Your task to perform on an android device: change timer sound Image 0: 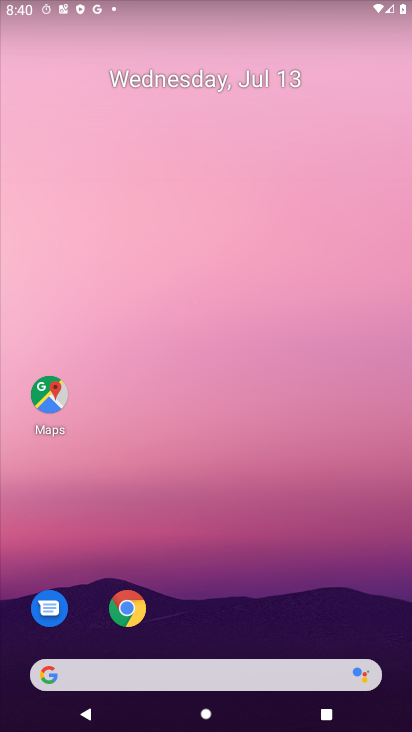
Step 0: drag from (326, 677) to (183, 148)
Your task to perform on an android device: change timer sound Image 1: 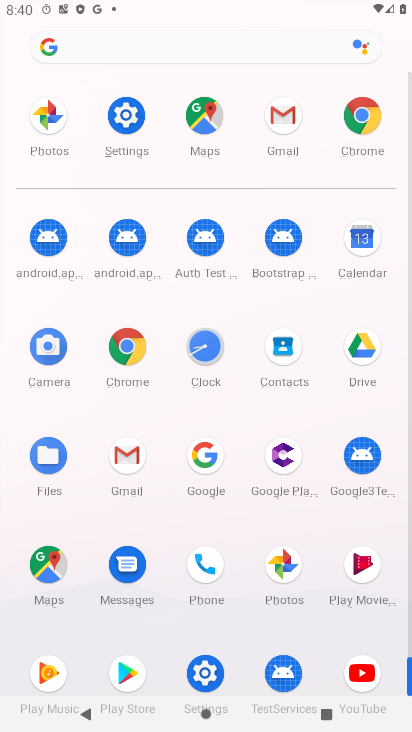
Step 1: click (204, 348)
Your task to perform on an android device: change timer sound Image 2: 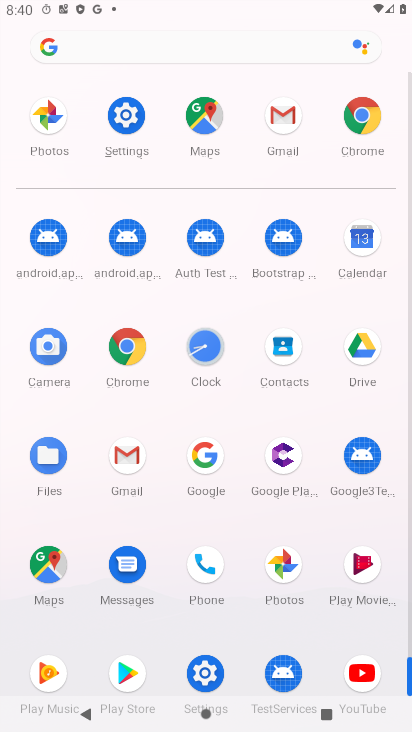
Step 2: click (205, 348)
Your task to perform on an android device: change timer sound Image 3: 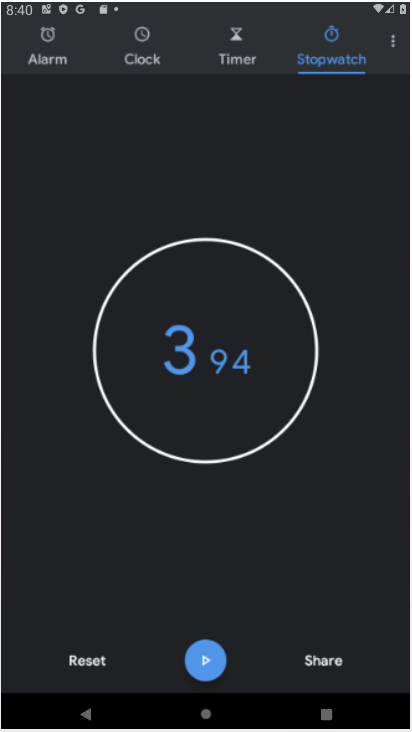
Step 3: click (209, 351)
Your task to perform on an android device: change timer sound Image 4: 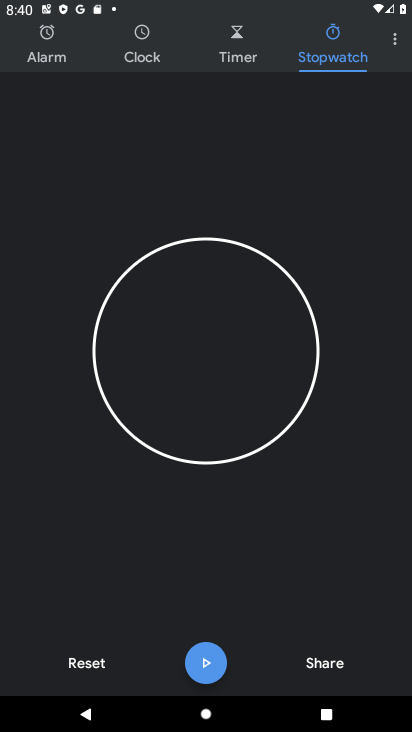
Step 4: click (210, 353)
Your task to perform on an android device: change timer sound Image 5: 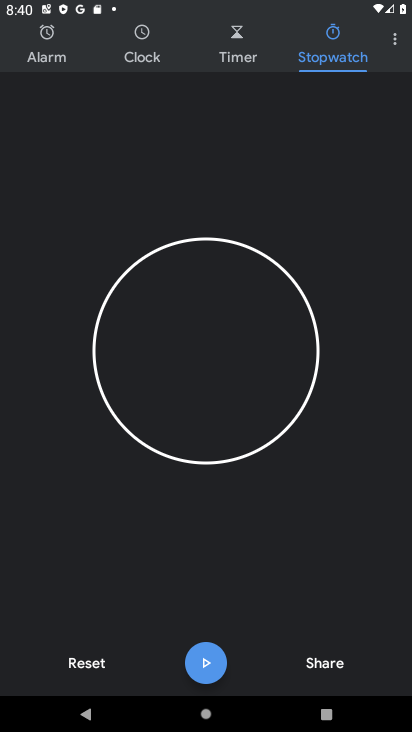
Step 5: click (238, 61)
Your task to perform on an android device: change timer sound Image 6: 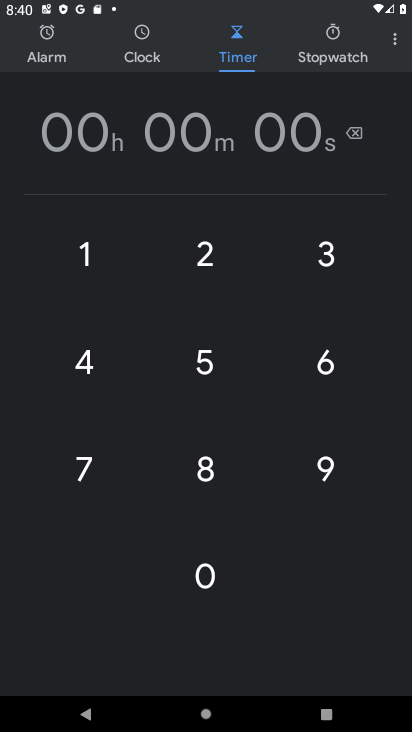
Step 6: click (200, 366)
Your task to perform on an android device: change timer sound Image 7: 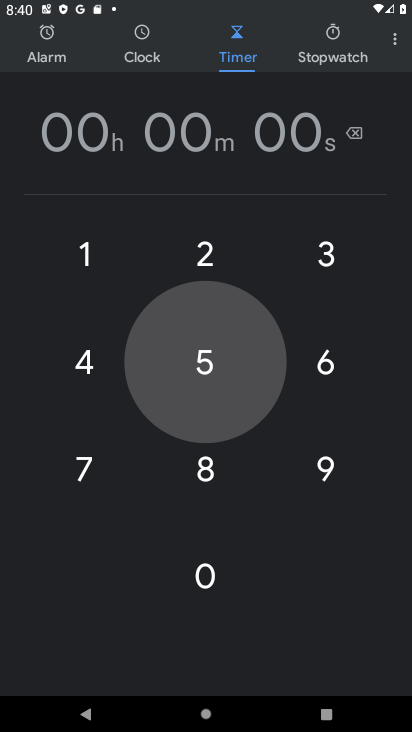
Step 7: click (200, 366)
Your task to perform on an android device: change timer sound Image 8: 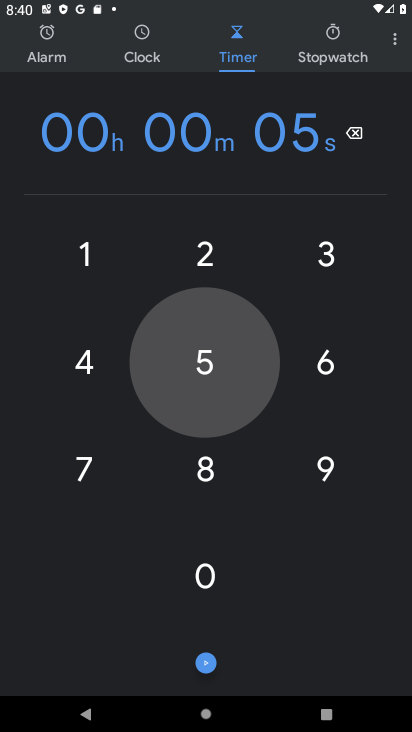
Step 8: click (200, 366)
Your task to perform on an android device: change timer sound Image 9: 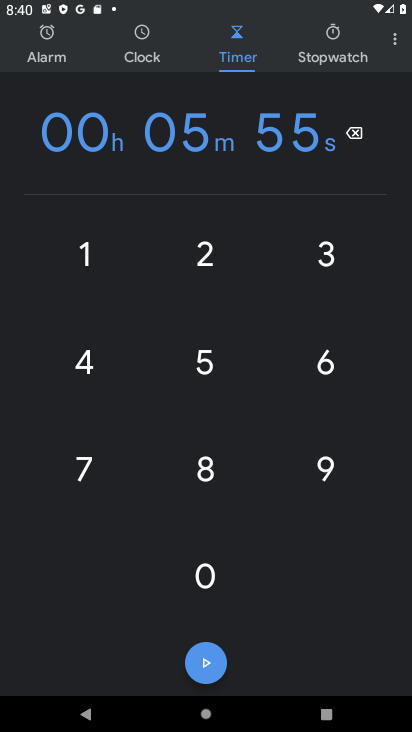
Step 9: click (393, 42)
Your task to perform on an android device: change timer sound Image 10: 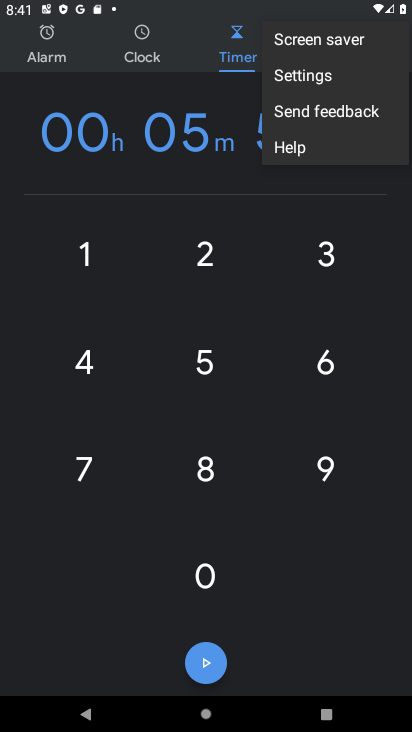
Step 10: click (333, 81)
Your task to perform on an android device: change timer sound Image 11: 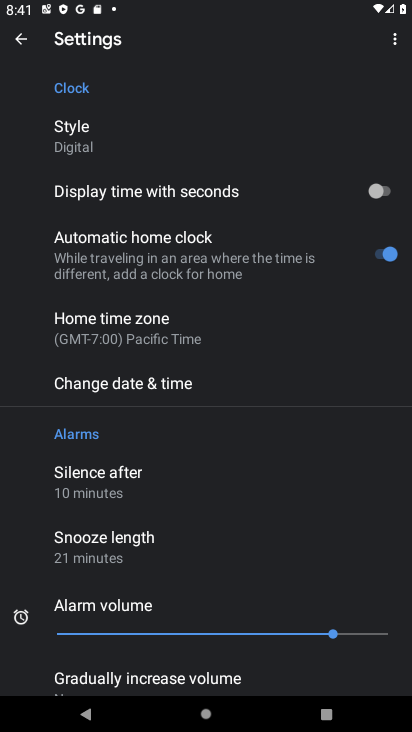
Step 11: drag from (150, 590) to (135, 87)
Your task to perform on an android device: change timer sound Image 12: 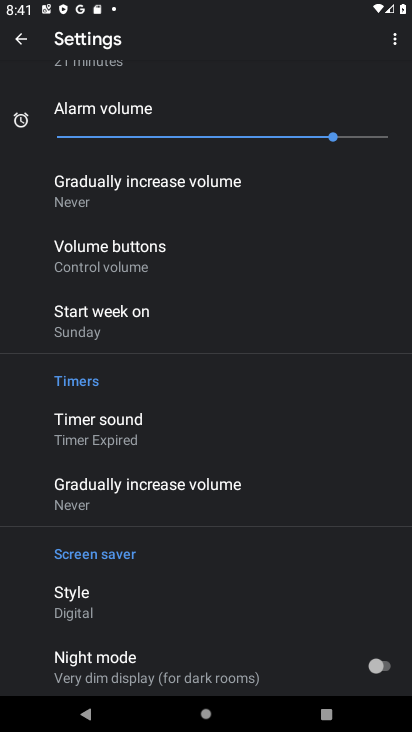
Step 12: click (78, 428)
Your task to perform on an android device: change timer sound Image 13: 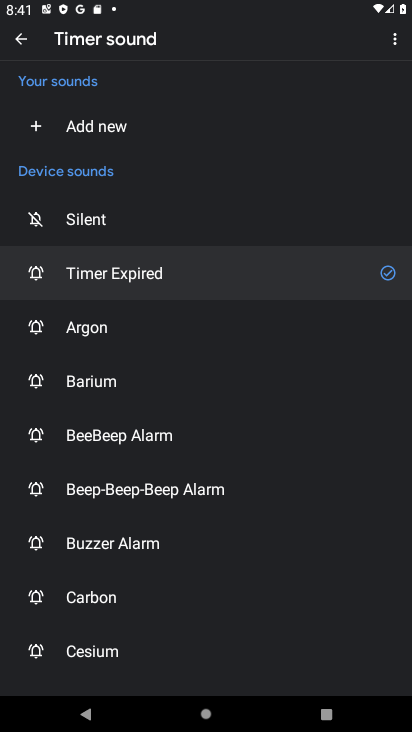
Step 13: click (38, 390)
Your task to perform on an android device: change timer sound Image 14: 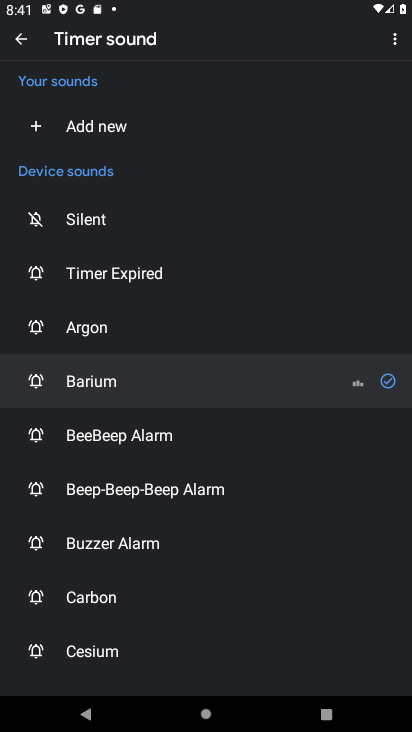
Step 14: task complete